Your task to perform on an android device: set the stopwatch Image 0: 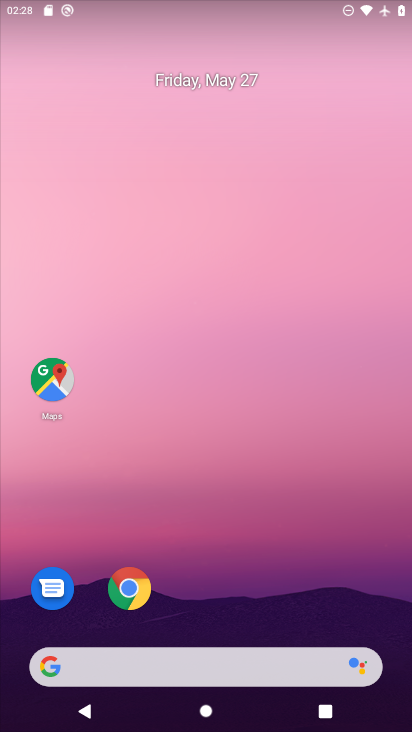
Step 0: drag from (365, 616) to (340, 46)
Your task to perform on an android device: set the stopwatch Image 1: 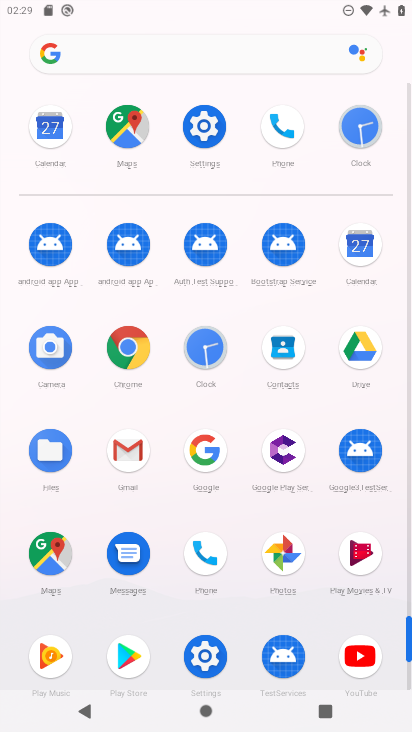
Step 1: click (411, 674)
Your task to perform on an android device: set the stopwatch Image 2: 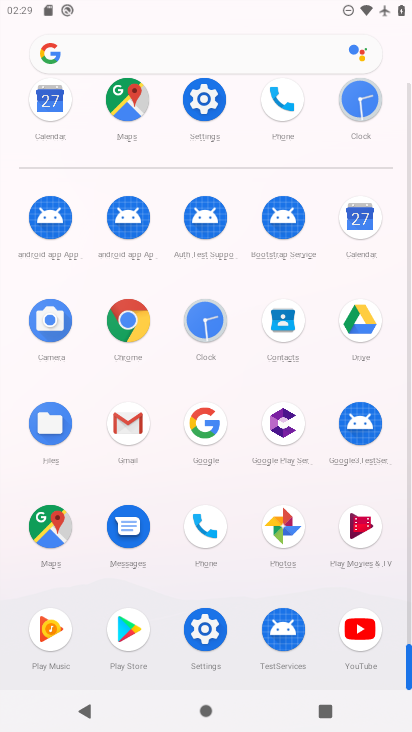
Step 2: click (203, 321)
Your task to perform on an android device: set the stopwatch Image 3: 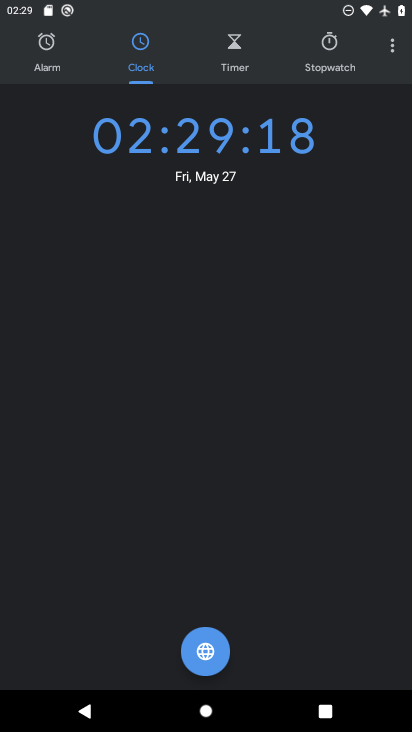
Step 3: click (325, 41)
Your task to perform on an android device: set the stopwatch Image 4: 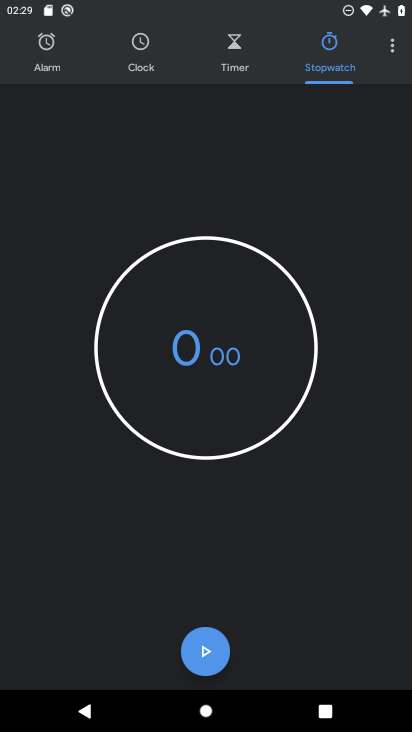
Step 4: task complete